Your task to perform on an android device: Open privacy settings Image 0: 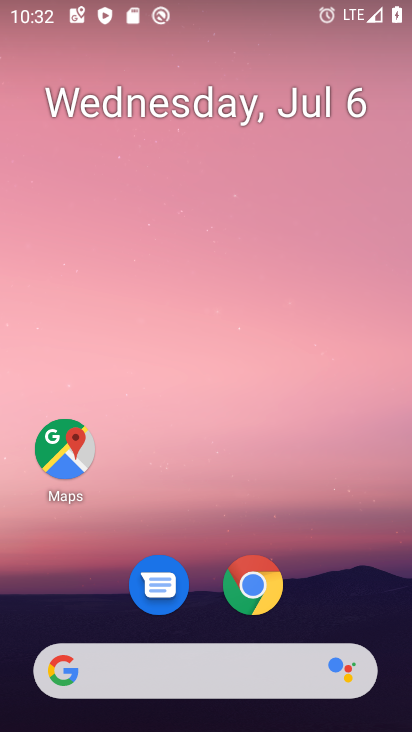
Step 0: drag from (236, 510) to (300, 32)
Your task to perform on an android device: Open privacy settings Image 1: 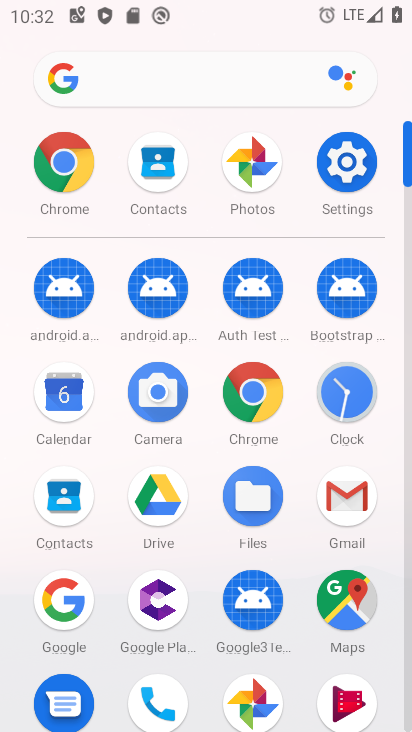
Step 1: click (355, 151)
Your task to perform on an android device: Open privacy settings Image 2: 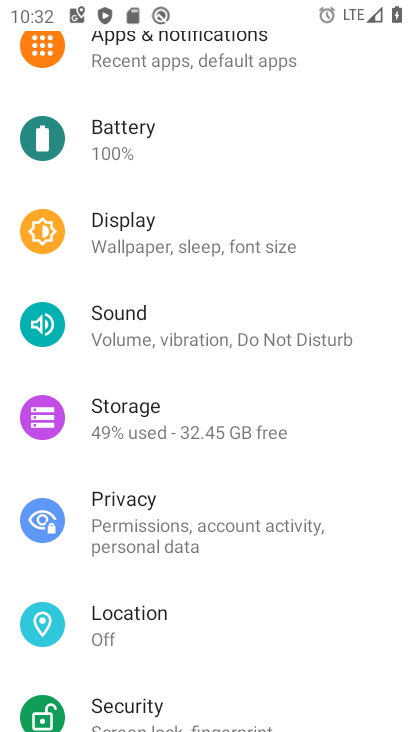
Step 2: click (213, 540)
Your task to perform on an android device: Open privacy settings Image 3: 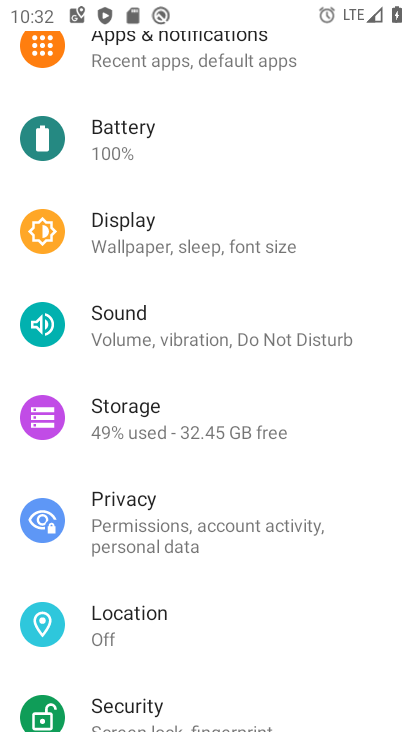
Step 3: click (234, 525)
Your task to perform on an android device: Open privacy settings Image 4: 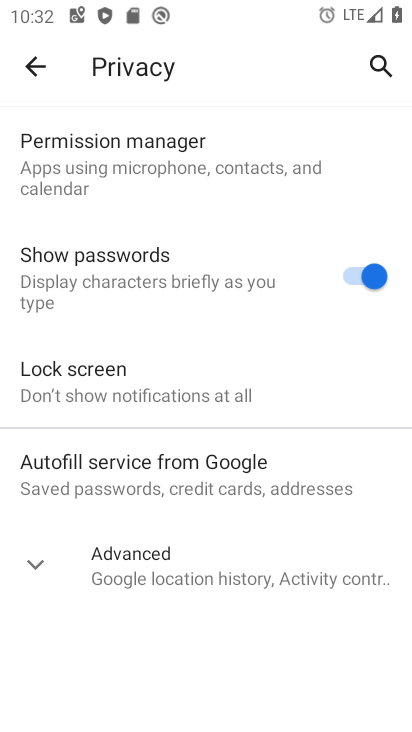
Step 4: task complete